Your task to perform on an android device: uninstall "Booking.com: Hotels and more" Image 0: 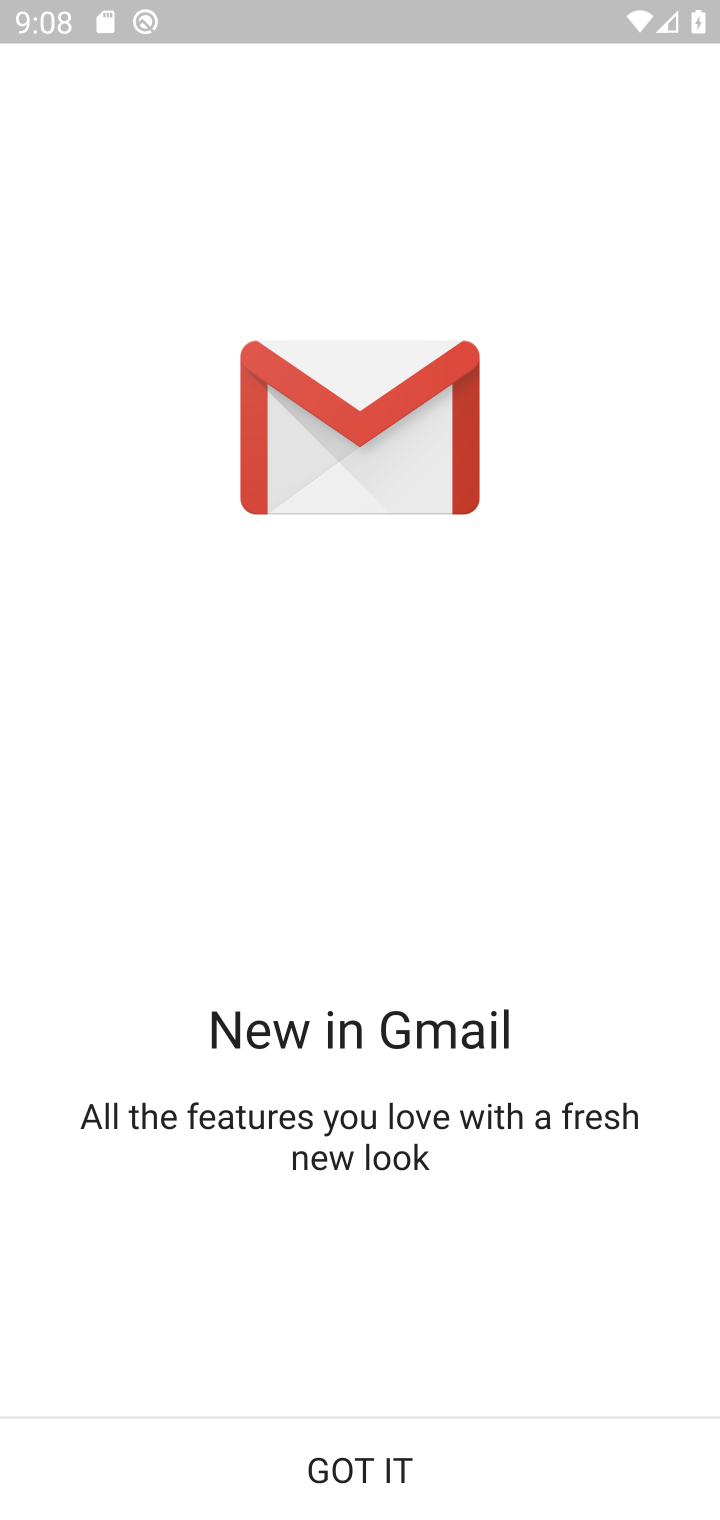
Step 0: press home button
Your task to perform on an android device: uninstall "Booking.com: Hotels and more" Image 1: 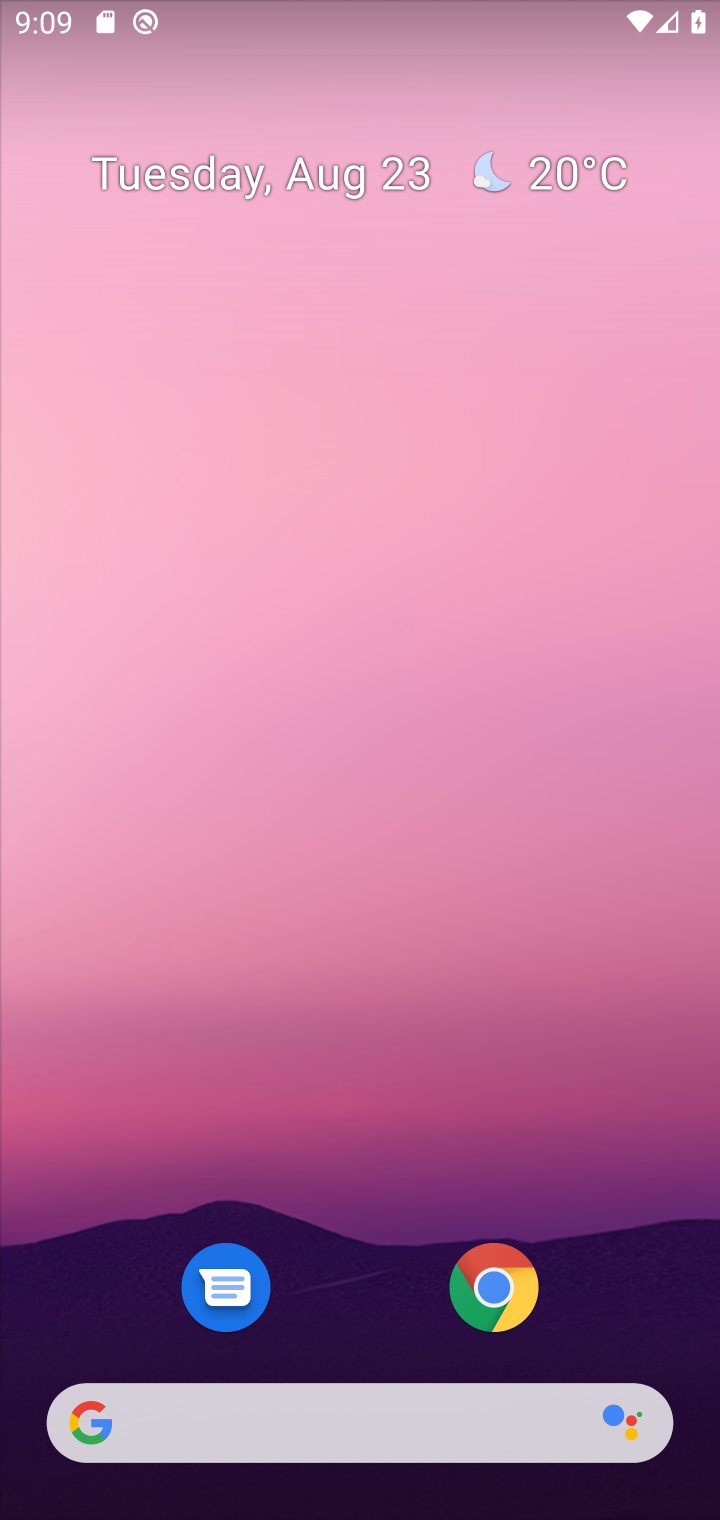
Step 1: drag from (366, 1254) to (347, 117)
Your task to perform on an android device: uninstall "Booking.com: Hotels and more" Image 2: 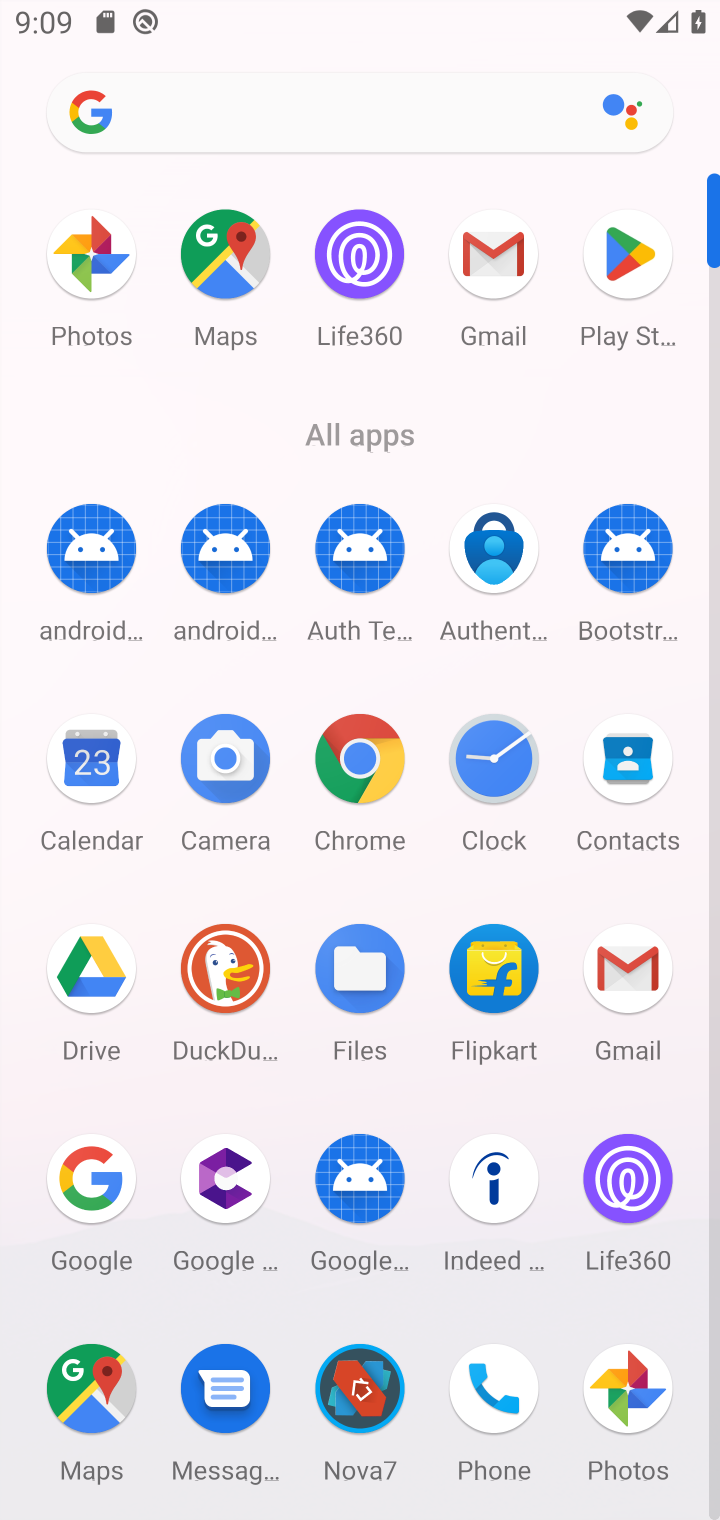
Step 2: click (632, 256)
Your task to perform on an android device: uninstall "Booking.com: Hotels and more" Image 3: 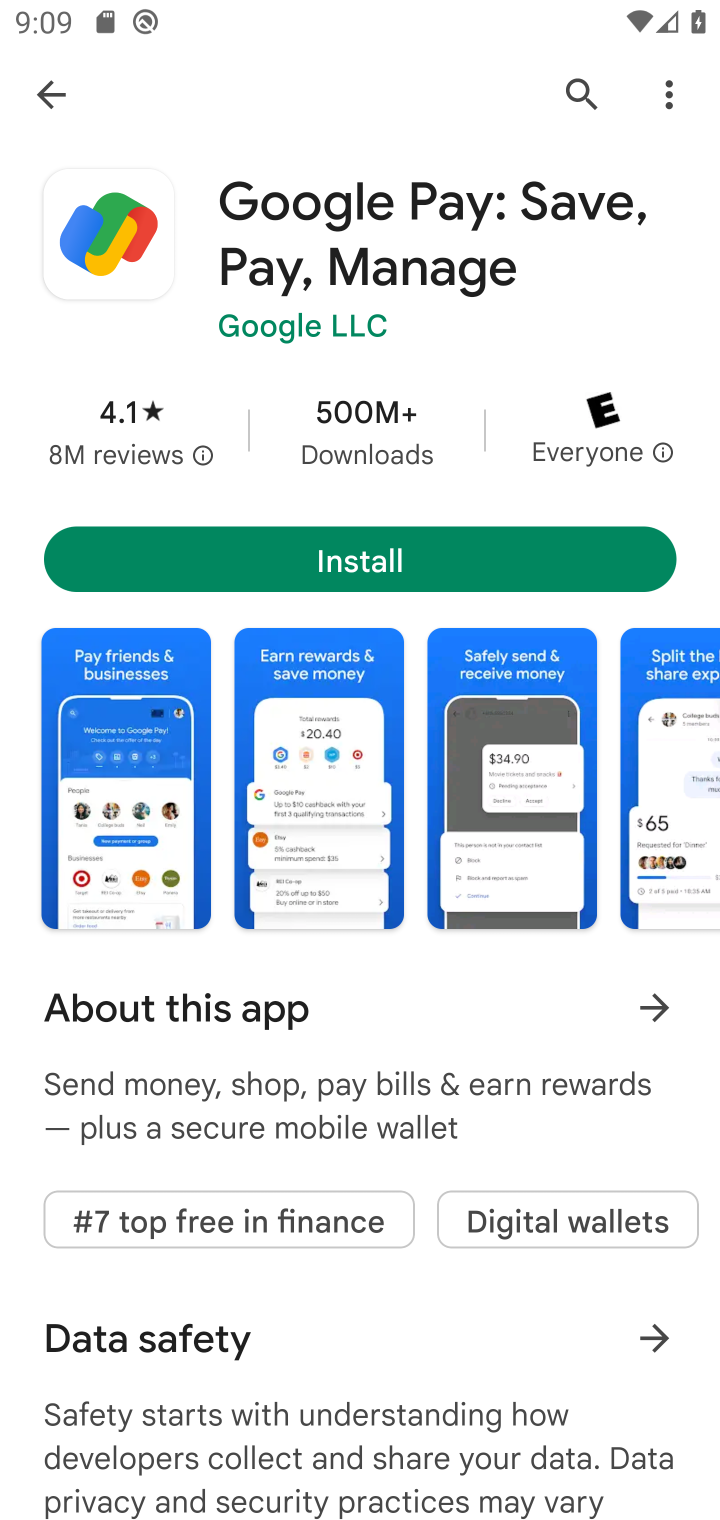
Step 3: click (575, 93)
Your task to perform on an android device: uninstall "Booking.com: Hotels and more" Image 4: 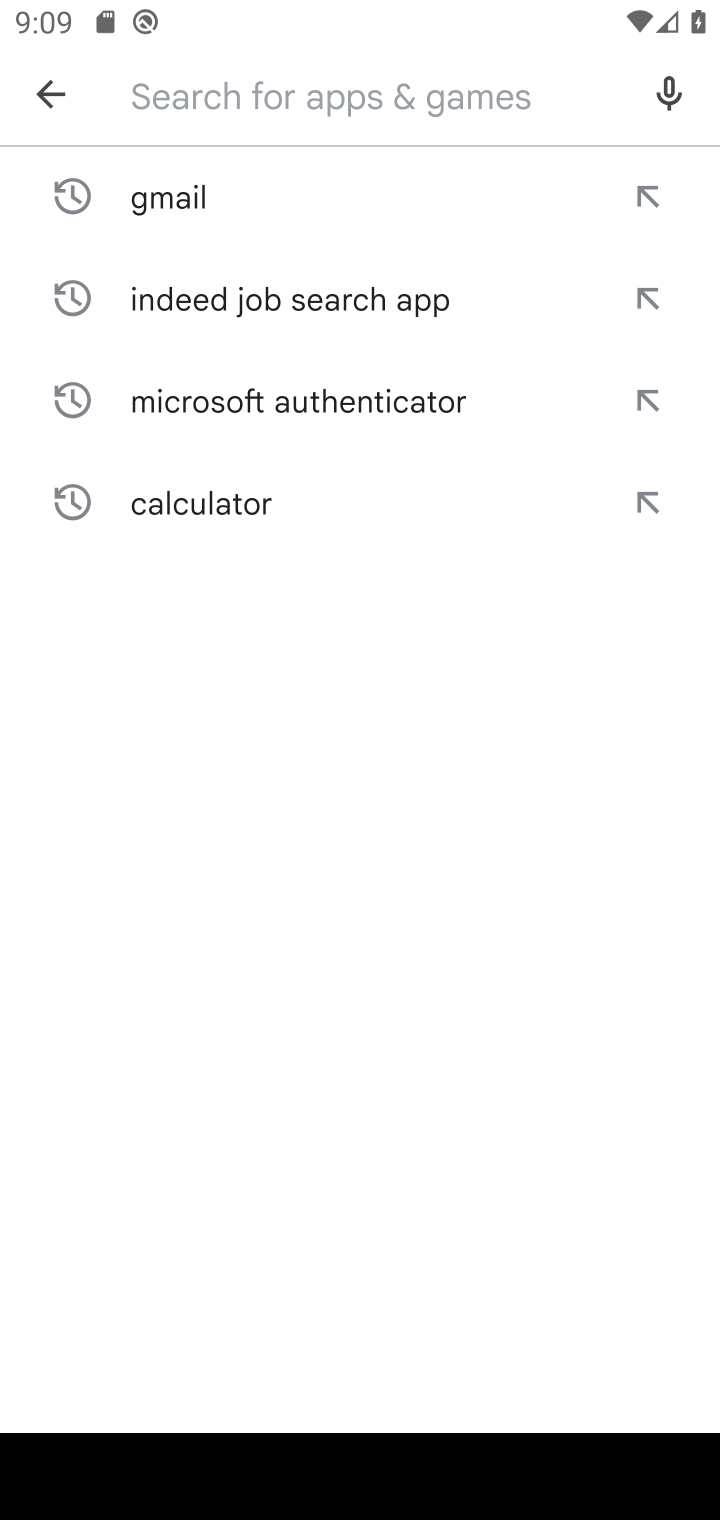
Step 4: type "Booking.com: Hotels and more"
Your task to perform on an android device: uninstall "Booking.com: Hotels and more" Image 5: 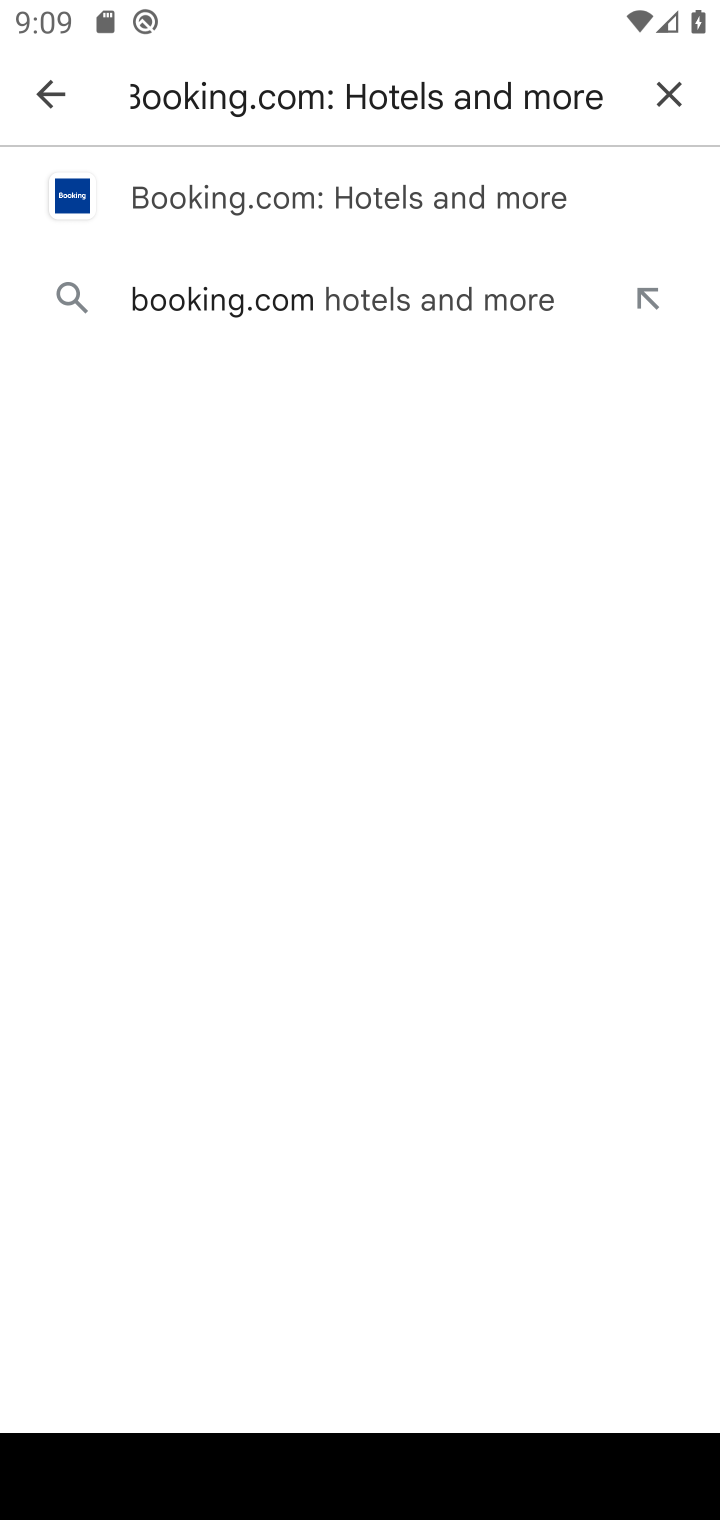
Step 5: click (397, 206)
Your task to perform on an android device: uninstall "Booking.com: Hotels and more" Image 6: 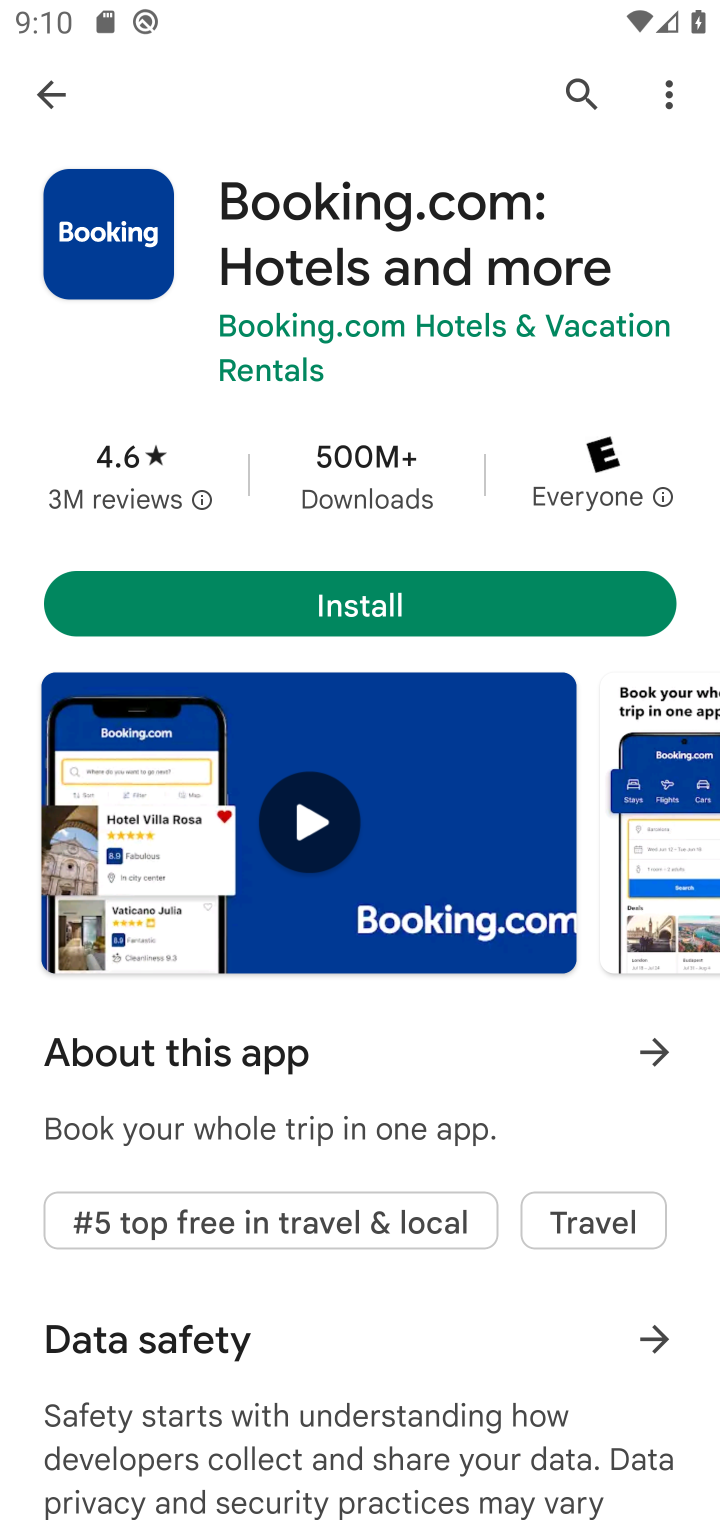
Step 6: task complete